Your task to perform on an android device: search for starred emails in the gmail app Image 0: 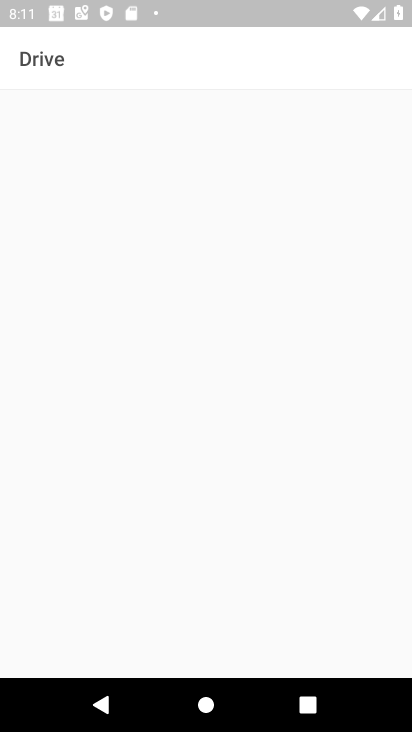
Step 0: press home button
Your task to perform on an android device: search for starred emails in the gmail app Image 1: 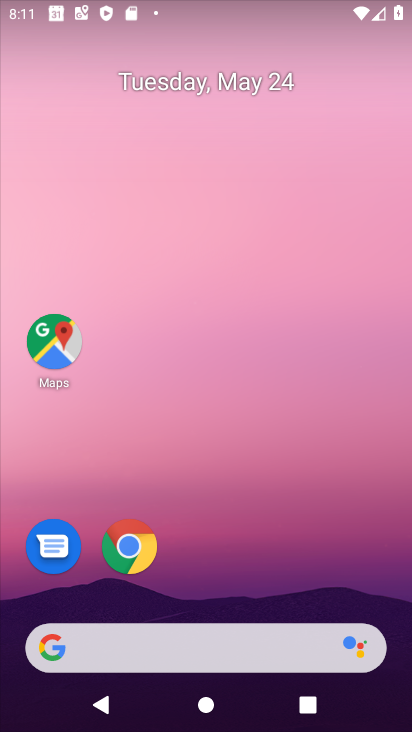
Step 1: drag from (276, 393) to (283, 0)
Your task to perform on an android device: search for starred emails in the gmail app Image 2: 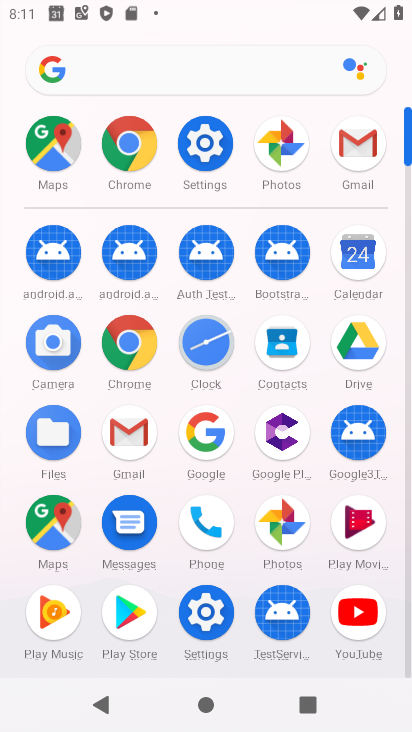
Step 2: click (363, 145)
Your task to perform on an android device: search for starred emails in the gmail app Image 3: 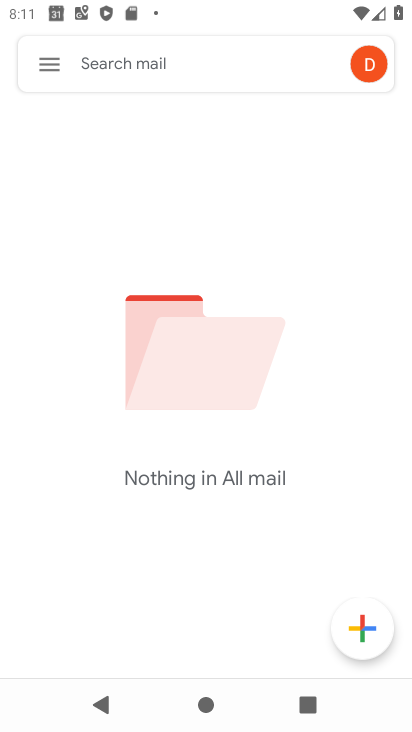
Step 3: click (43, 57)
Your task to perform on an android device: search for starred emails in the gmail app Image 4: 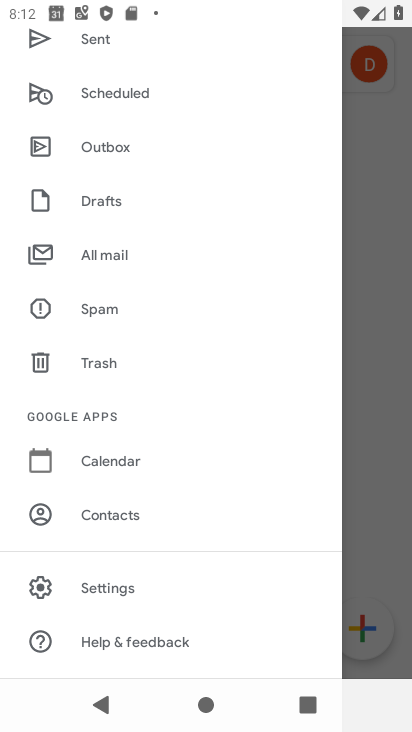
Step 4: drag from (159, 184) to (144, 498)
Your task to perform on an android device: search for starred emails in the gmail app Image 5: 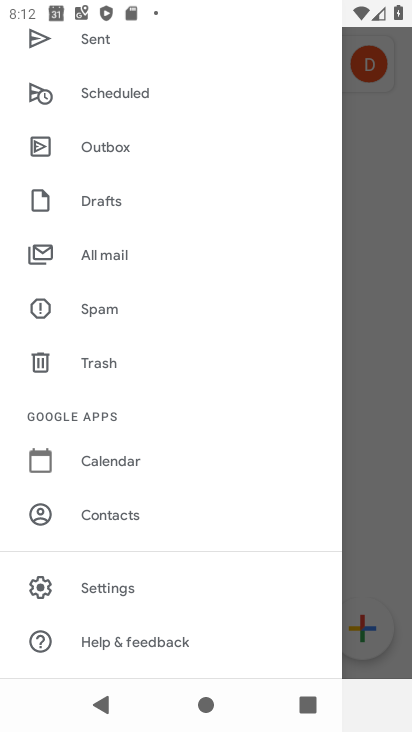
Step 5: drag from (164, 235) to (177, 567)
Your task to perform on an android device: search for starred emails in the gmail app Image 6: 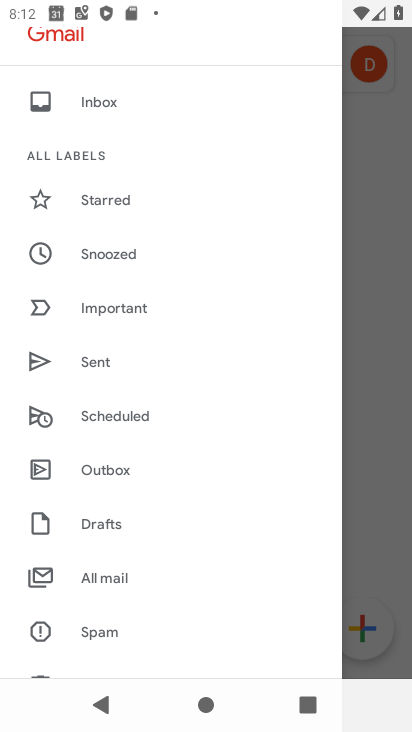
Step 6: click (160, 190)
Your task to perform on an android device: search for starred emails in the gmail app Image 7: 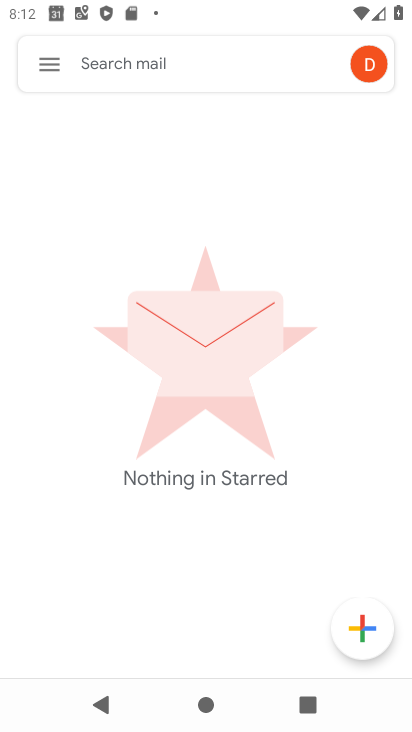
Step 7: task complete